Your task to perform on an android device: add a label to a message in the gmail app Image 0: 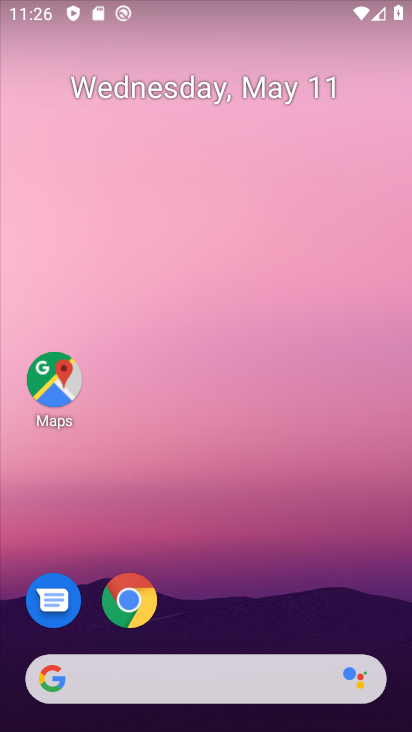
Step 0: drag from (191, 609) to (305, 58)
Your task to perform on an android device: add a label to a message in the gmail app Image 1: 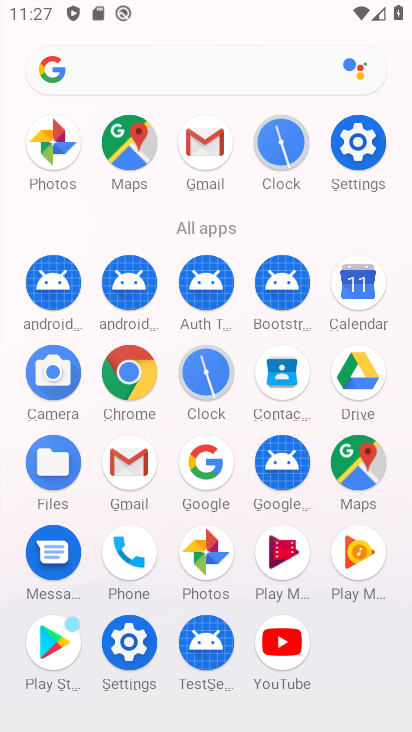
Step 1: click (129, 465)
Your task to perform on an android device: add a label to a message in the gmail app Image 2: 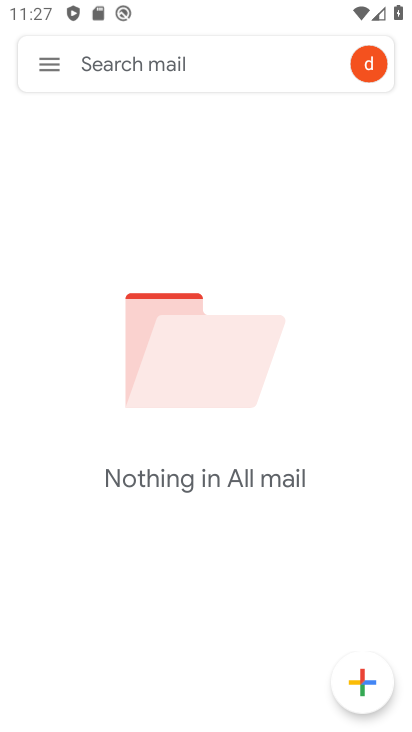
Step 2: task complete